Your task to perform on an android device: Open internet settings Image 0: 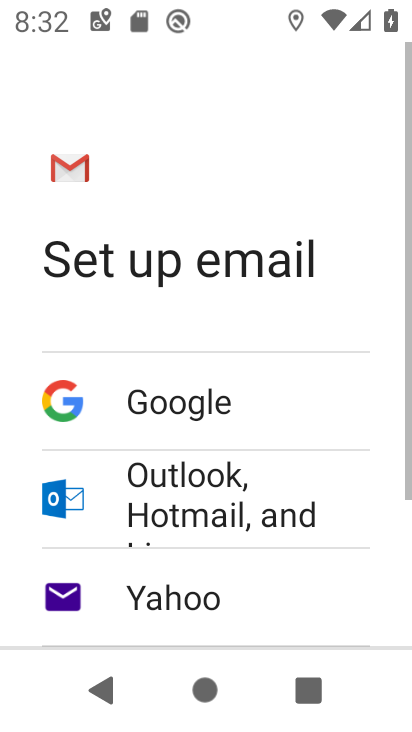
Step 0: press home button
Your task to perform on an android device: Open internet settings Image 1: 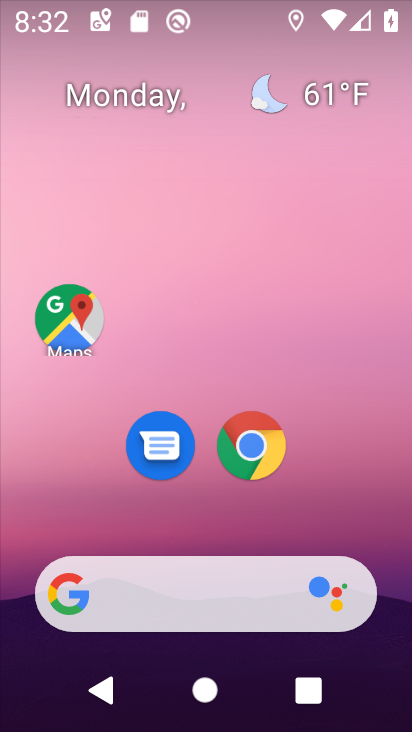
Step 1: drag from (209, 531) to (219, 46)
Your task to perform on an android device: Open internet settings Image 2: 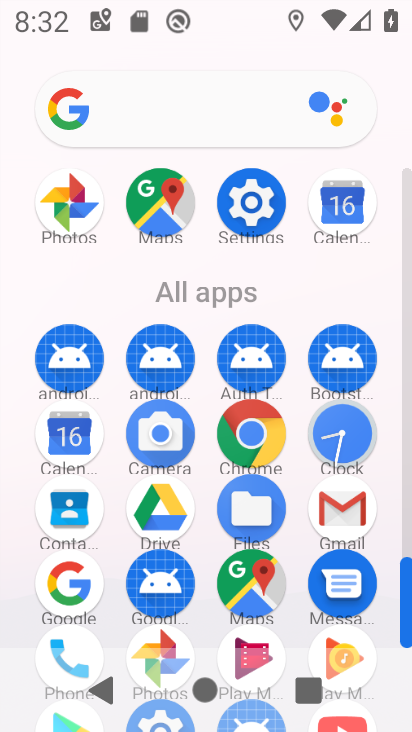
Step 2: click (253, 196)
Your task to perform on an android device: Open internet settings Image 3: 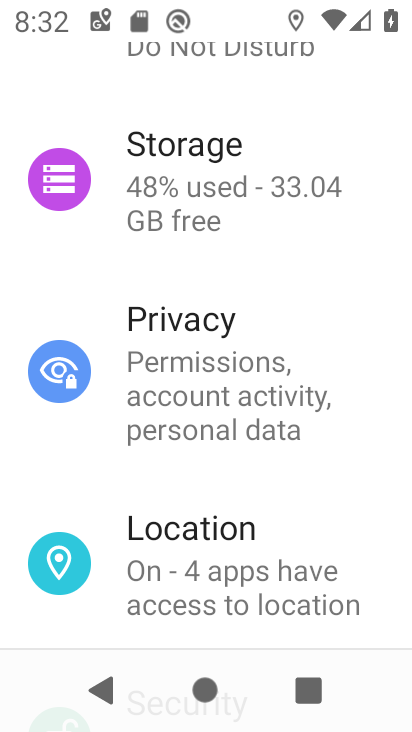
Step 3: drag from (233, 110) to (271, 640)
Your task to perform on an android device: Open internet settings Image 4: 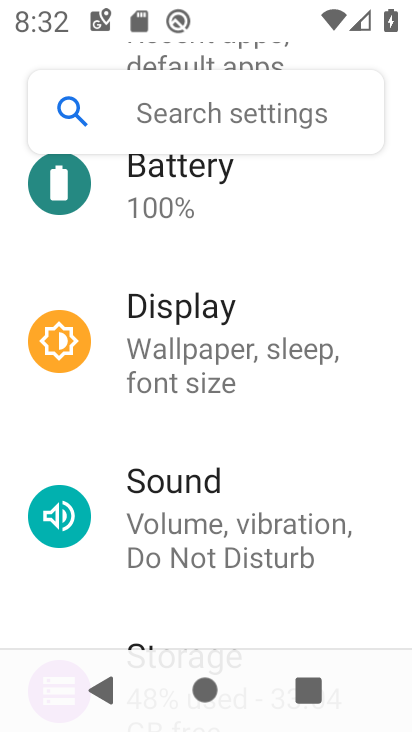
Step 4: drag from (241, 196) to (312, 730)
Your task to perform on an android device: Open internet settings Image 5: 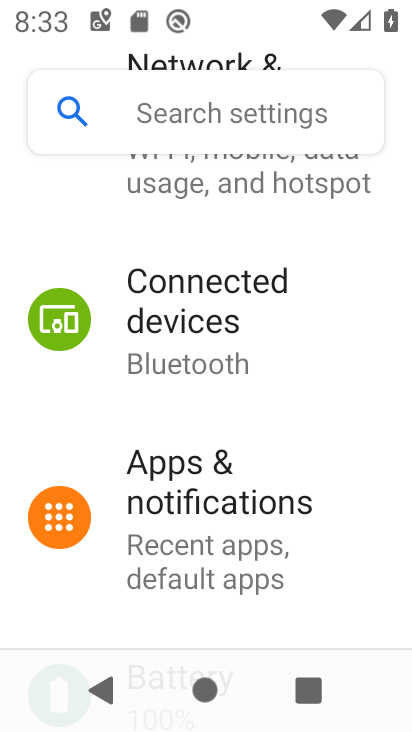
Step 5: click (267, 181)
Your task to perform on an android device: Open internet settings Image 6: 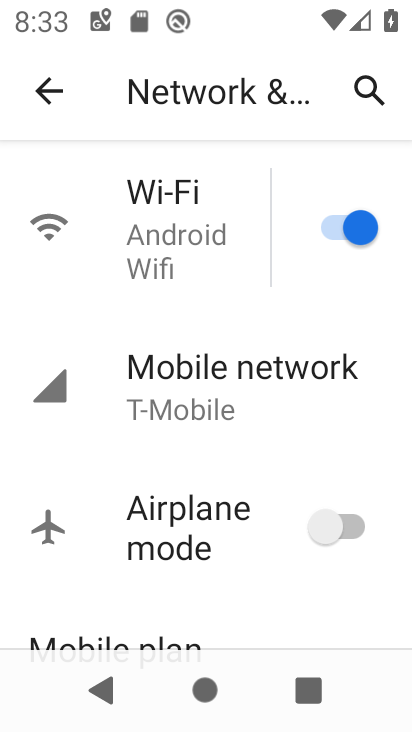
Step 6: drag from (235, 614) to (239, 190)
Your task to perform on an android device: Open internet settings Image 7: 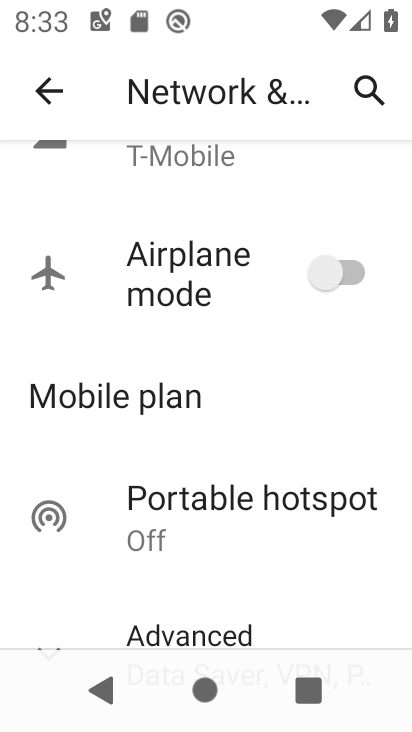
Step 7: drag from (205, 609) to (238, 161)
Your task to perform on an android device: Open internet settings Image 8: 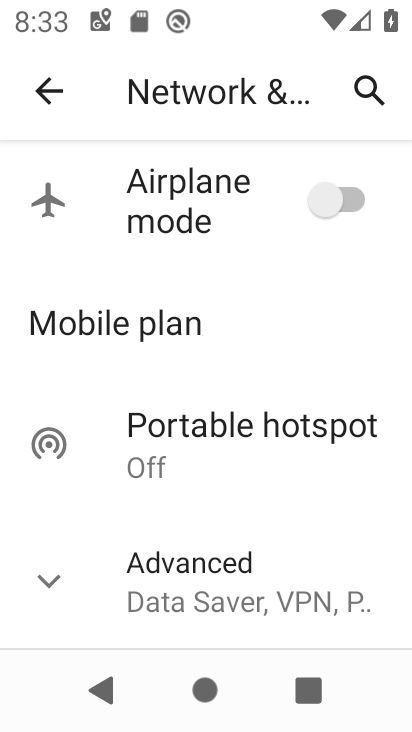
Step 8: click (52, 586)
Your task to perform on an android device: Open internet settings Image 9: 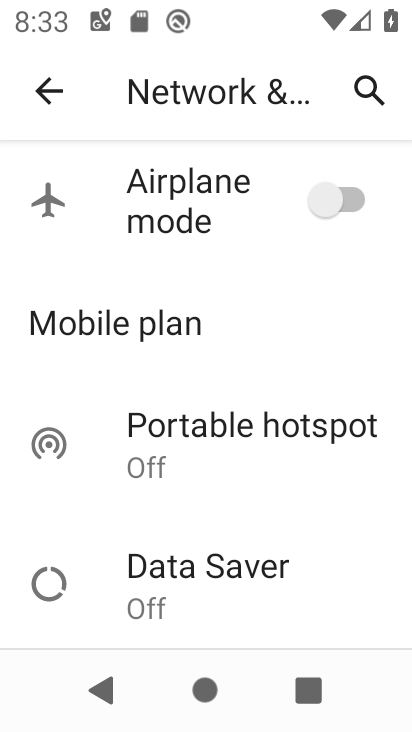
Step 9: task complete